Your task to perform on an android device: toggle pop-ups in chrome Image 0: 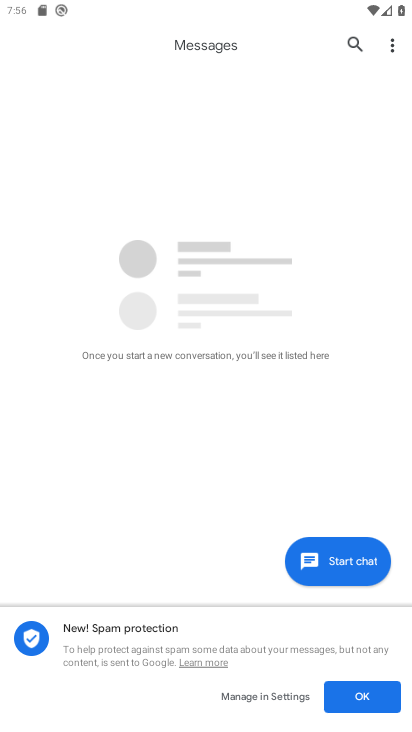
Step 0: press home button
Your task to perform on an android device: toggle pop-ups in chrome Image 1: 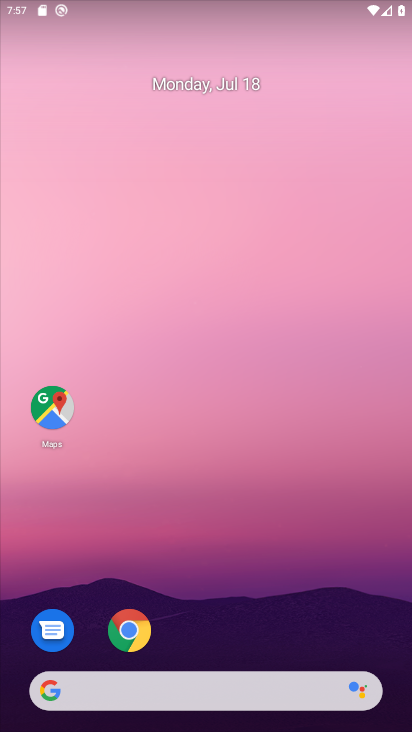
Step 1: click (143, 633)
Your task to perform on an android device: toggle pop-ups in chrome Image 2: 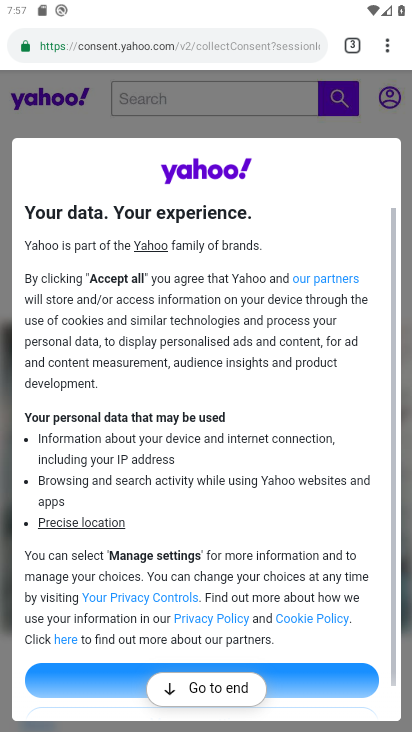
Step 2: click (387, 42)
Your task to perform on an android device: toggle pop-ups in chrome Image 3: 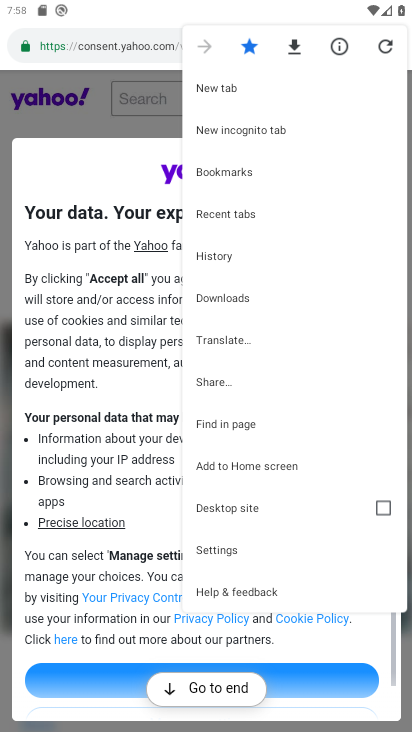
Step 3: click (242, 543)
Your task to perform on an android device: toggle pop-ups in chrome Image 4: 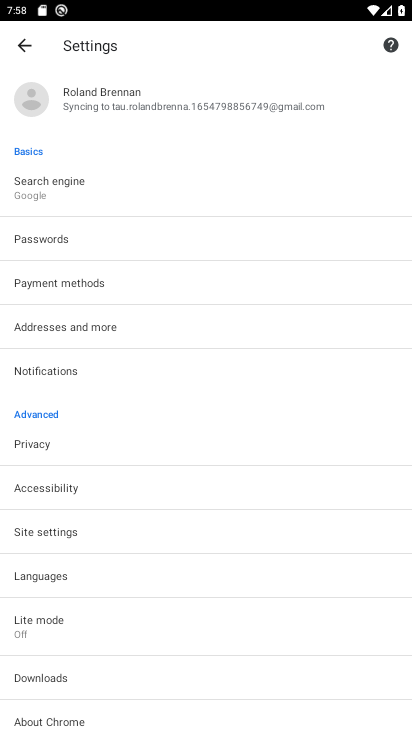
Step 4: click (83, 526)
Your task to perform on an android device: toggle pop-ups in chrome Image 5: 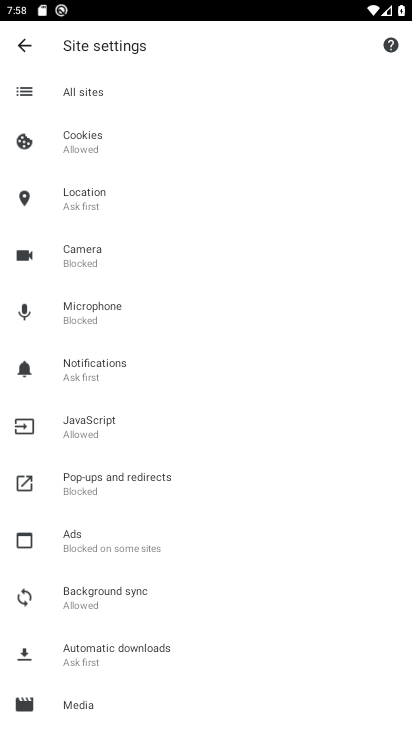
Step 5: click (131, 502)
Your task to perform on an android device: toggle pop-ups in chrome Image 6: 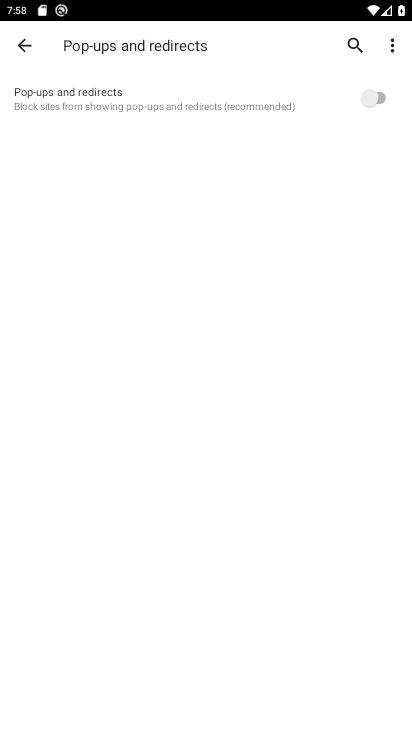
Step 6: click (379, 100)
Your task to perform on an android device: toggle pop-ups in chrome Image 7: 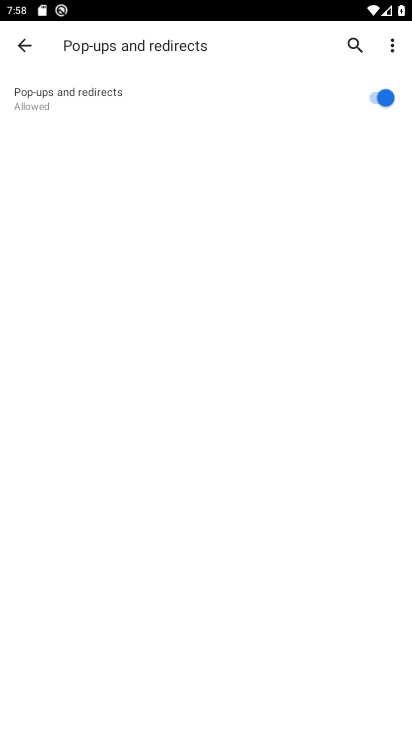
Step 7: task complete